Your task to perform on an android device: Go to CNN.com Image 0: 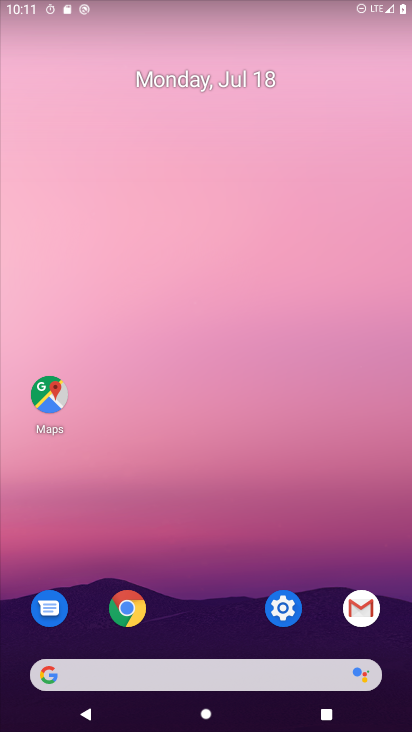
Step 0: click (133, 615)
Your task to perform on an android device: Go to CNN.com Image 1: 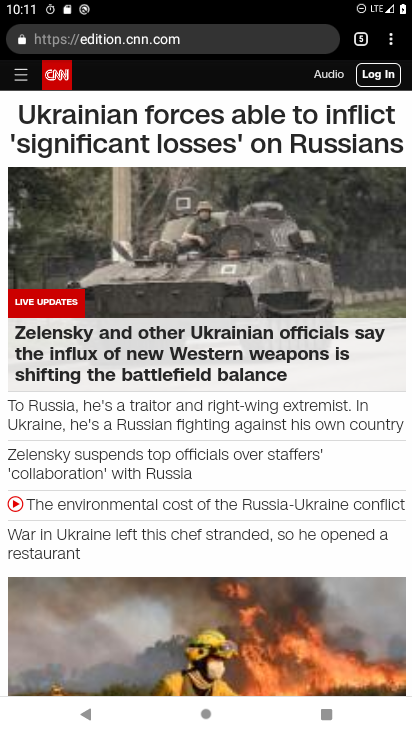
Step 1: click (192, 49)
Your task to perform on an android device: Go to CNN.com Image 2: 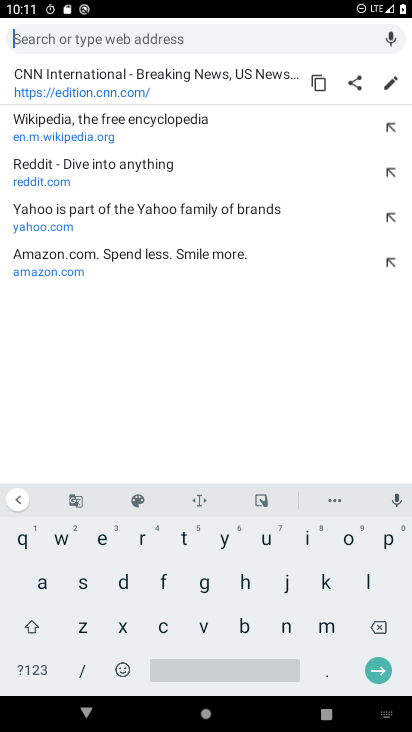
Step 2: click (84, 90)
Your task to perform on an android device: Go to CNN.com Image 3: 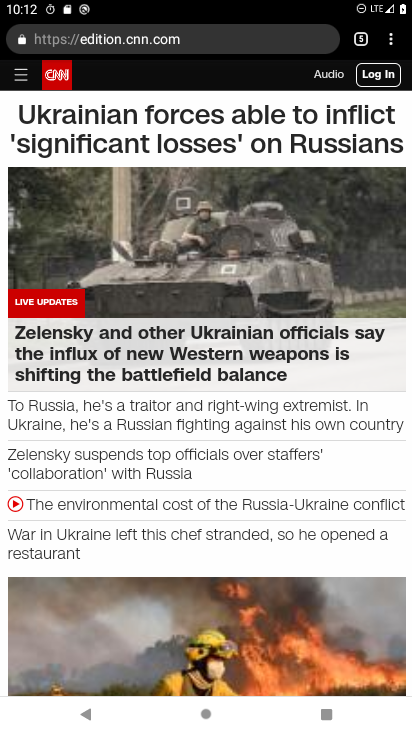
Step 3: task complete